Your task to perform on an android device: turn off notifications in google photos Image 0: 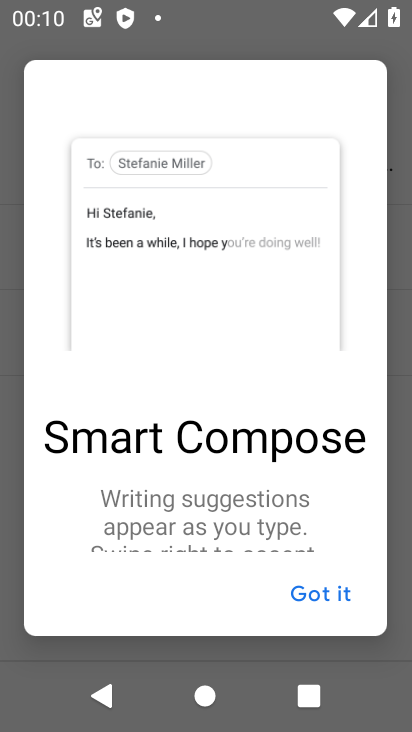
Step 0: click (315, 97)
Your task to perform on an android device: turn off notifications in google photos Image 1: 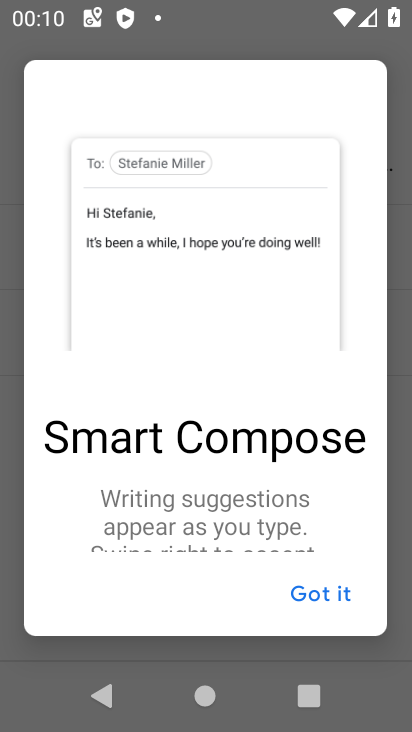
Step 1: press home button
Your task to perform on an android device: turn off notifications in google photos Image 2: 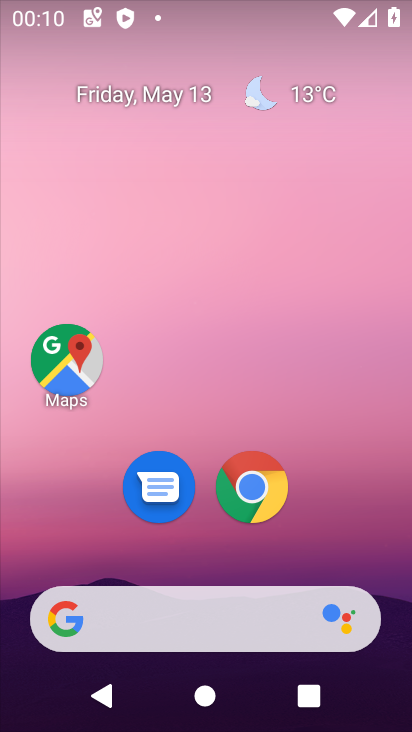
Step 2: click (323, 544)
Your task to perform on an android device: turn off notifications in google photos Image 3: 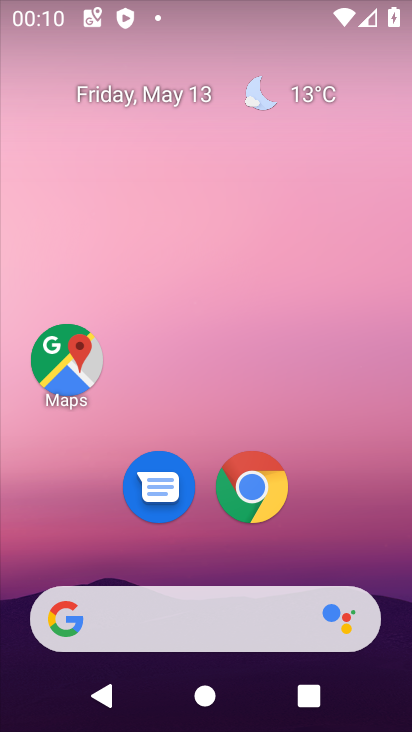
Step 3: drag from (323, 544) to (405, 88)
Your task to perform on an android device: turn off notifications in google photos Image 4: 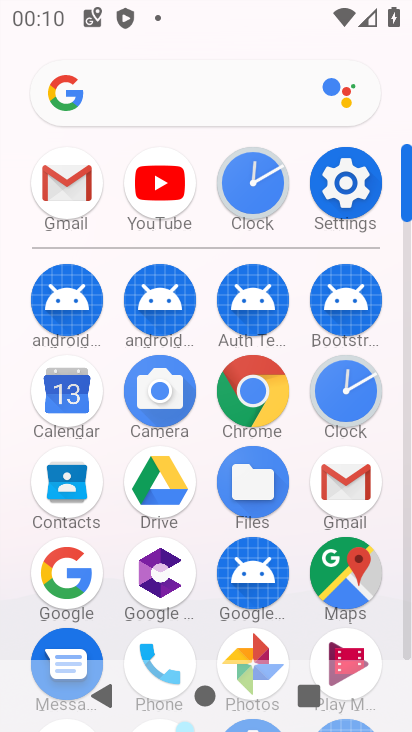
Step 4: click (245, 635)
Your task to perform on an android device: turn off notifications in google photos Image 5: 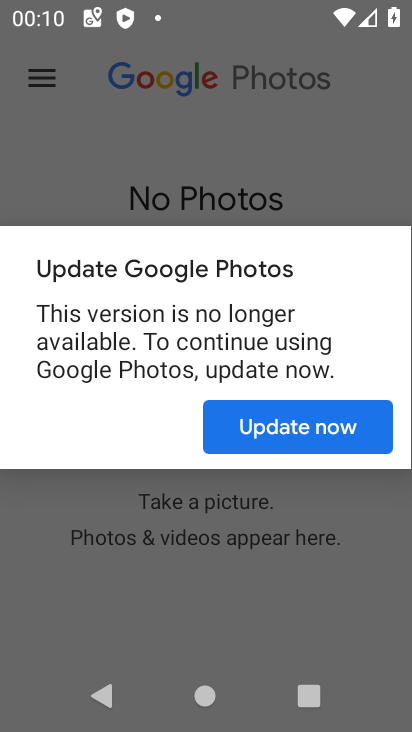
Step 5: click (287, 414)
Your task to perform on an android device: turn off notifications in google photos Image 6: 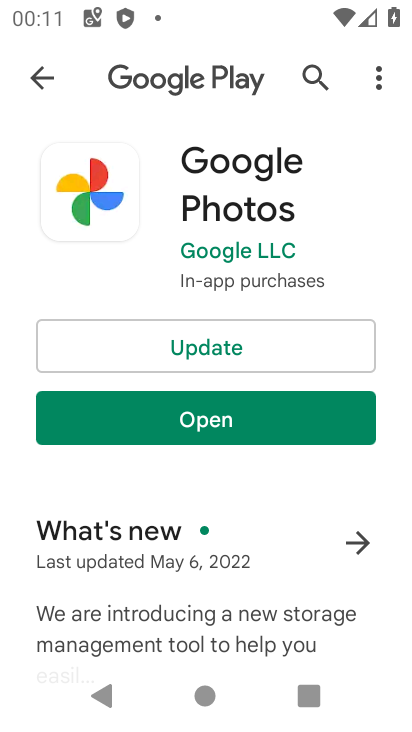
Step 6: click (287, 414)
Your task to perform on an android device: turn off notifications in google photos Image 7: 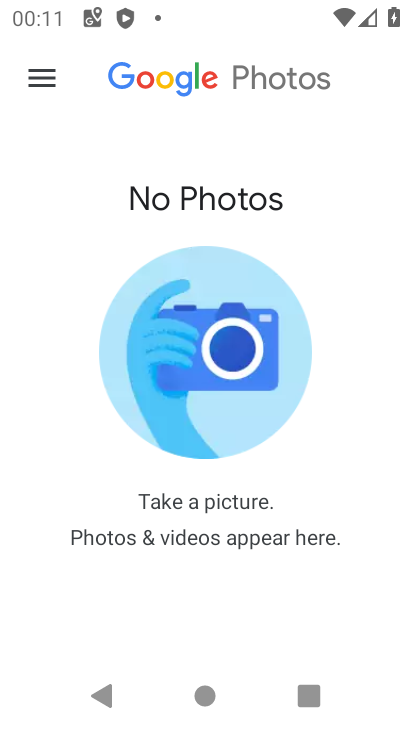
Step 7: click (51, 86)
Your task to perform on an android device: turn off notifications in google photos Image 8: 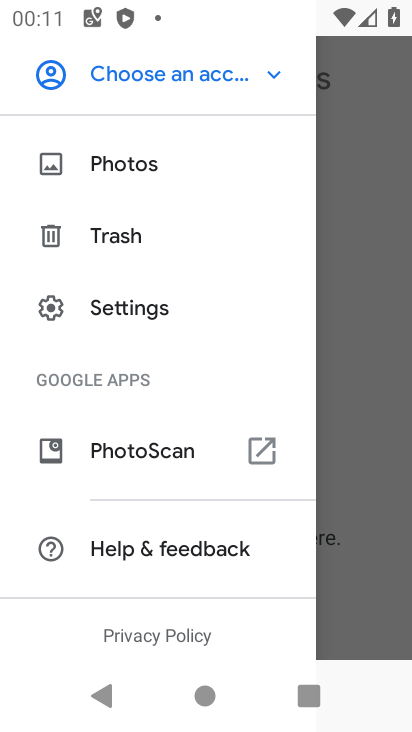
Step 8: click (131, 320)
Your task to perform on an android device: turn off notifications in google photos Image 9: 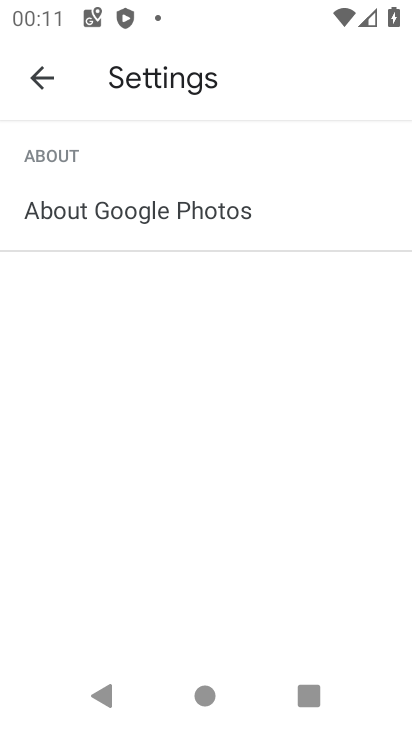
Step 9: task complete